Your task to perform on an android device: Go to Yahoo.com Image 0: 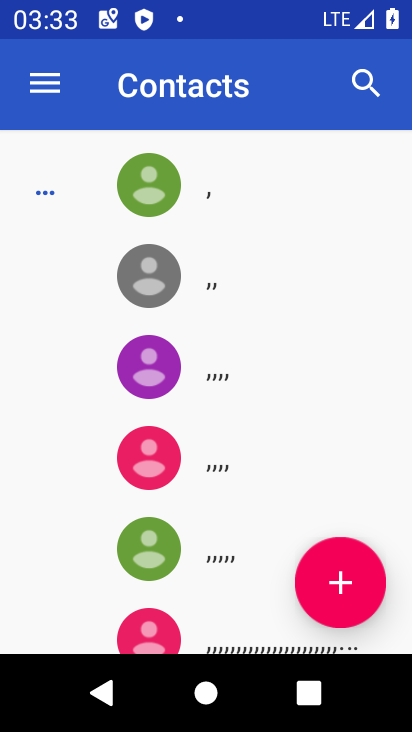
Step 0: press home button
Your task to perform on an android device: Go to Yahoo.com Image 1: 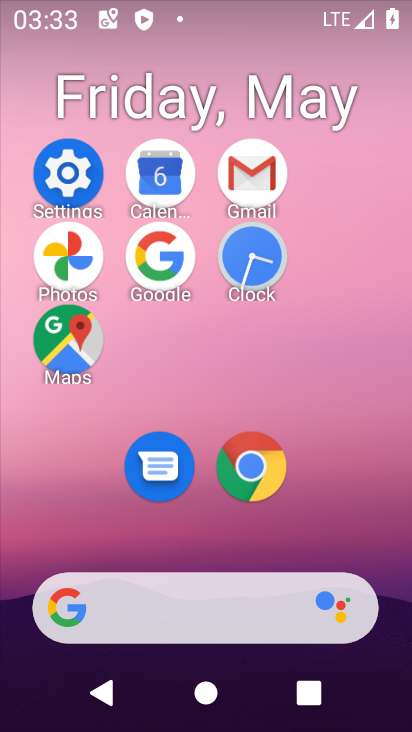
Step 1: click (272, 451)
Your task to perform on an android device: Go to Yahoo.com Image 2: 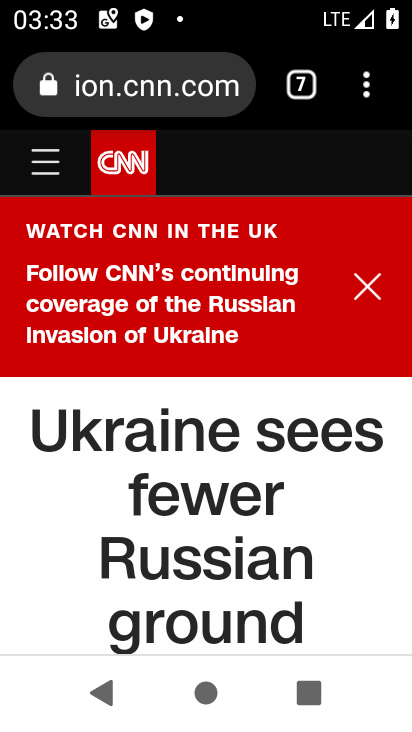
Step 2: click (286, 90)
Your task to perform on an android device: Go to Yahoo.com Image 3: 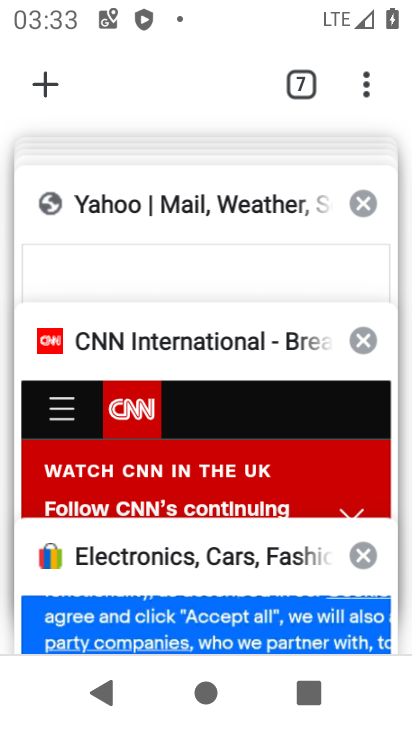
Step 3: click (238, 242)
Your task to perform on an android device: Go to Yahoo.com Image 4: 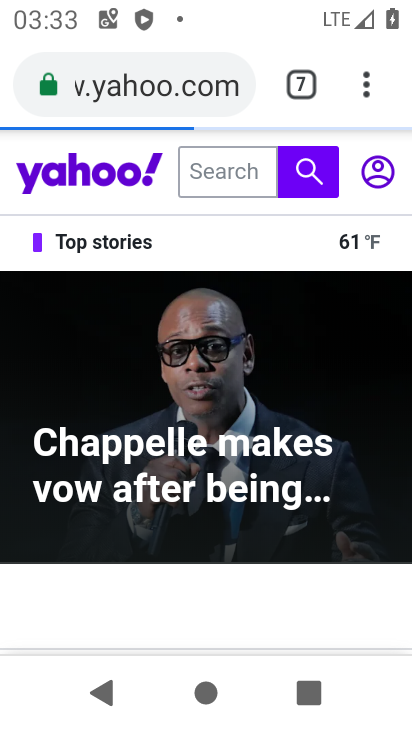
Step 4: task complete